Your task to perform on an android device: Go to ESPN.com Image 0: 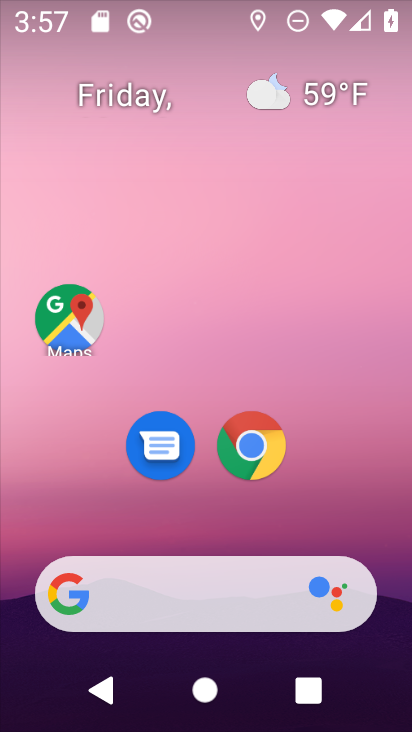
Step 0: click (246, 442)
Your task to perform on an android device: Go to ESPN.com Image 1: 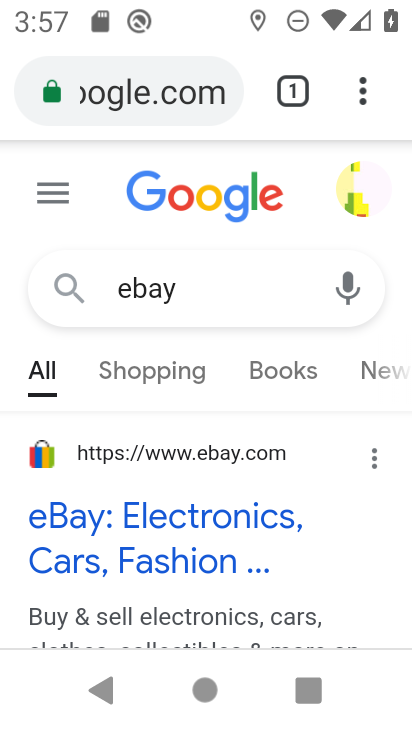
Step 1: click (115, 87)
Your task to perform on an android device: Go to ESPN.com Image 2: 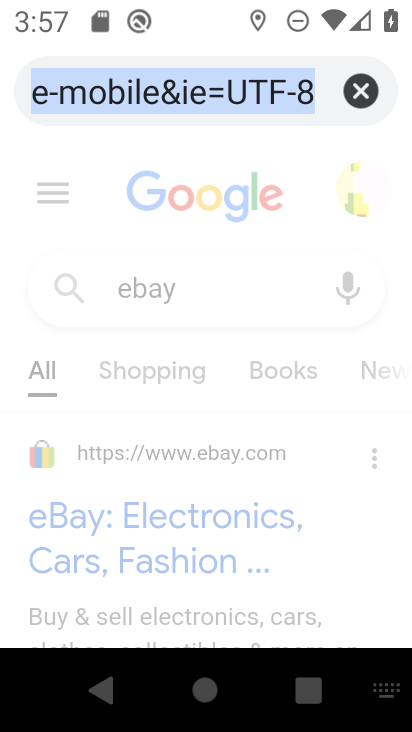
Step 2: click (357, 87)
Your task to perform on an android device: Go to ESPN.com Image 3: 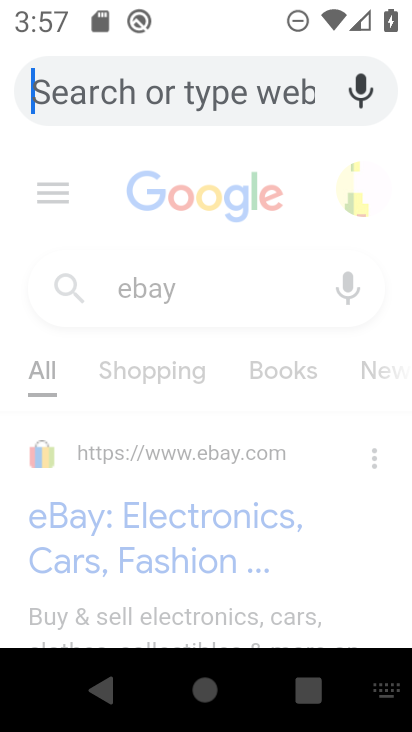
Step 3: type "espn.com"
Your task to perform on an android device: Go to ESPN.com Image 4: 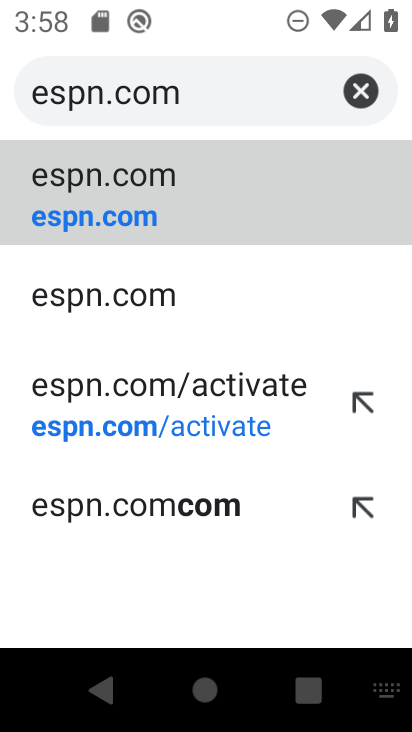
Step 4: click (75, 173)
Your task to perform on an android device: Go to ESPN.com Image 5: 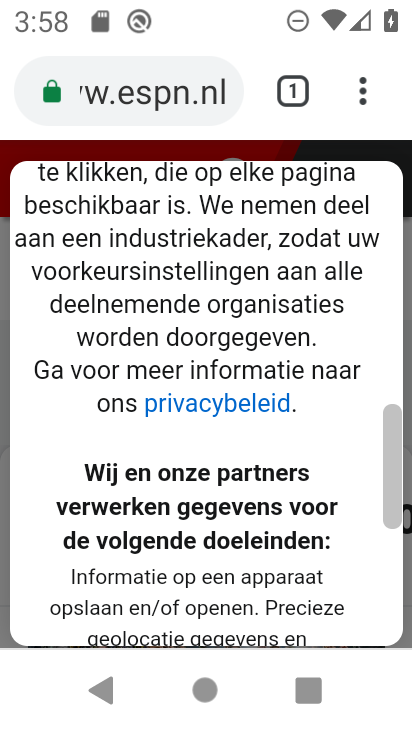
Step 5: task complete